Your task to perform on an android device: check android version Image 0: 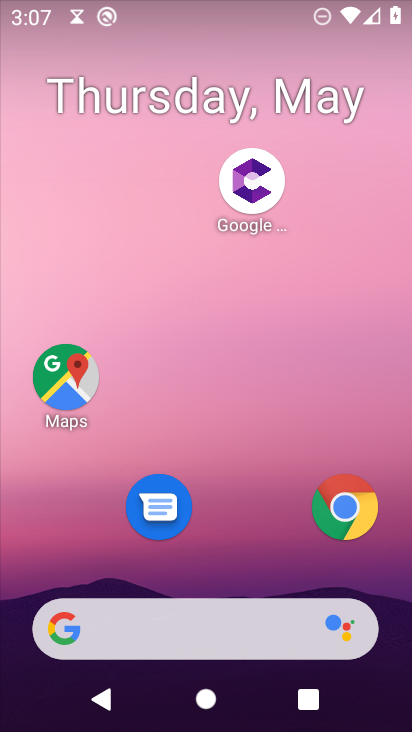
Step 0: drag from (277, 530) to (223, 167)
Your task to perform on an android device: check android version Image 1: 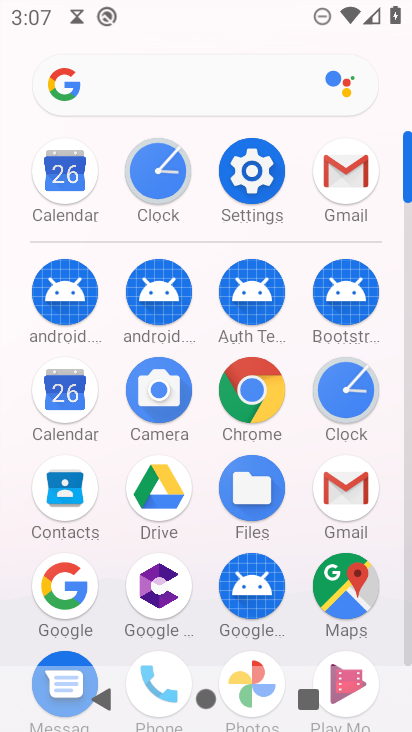
Step 1: click (244, 174)
Your task to perform on an android device: check android version Image 2: 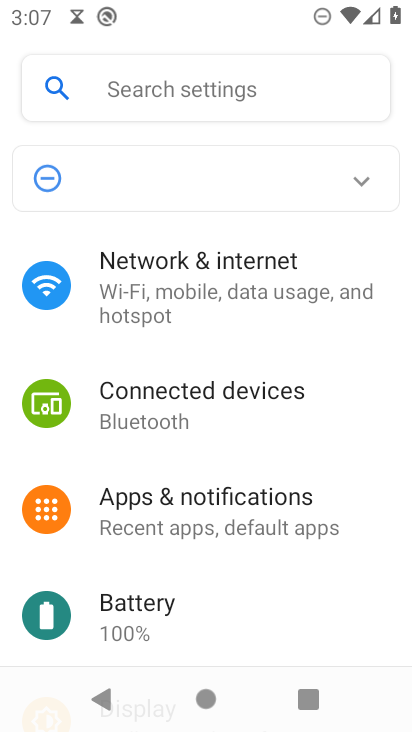
Step 2: drag from (359, 655) to (173, 115)
Your task to perform on an android device: check android version Image 3: 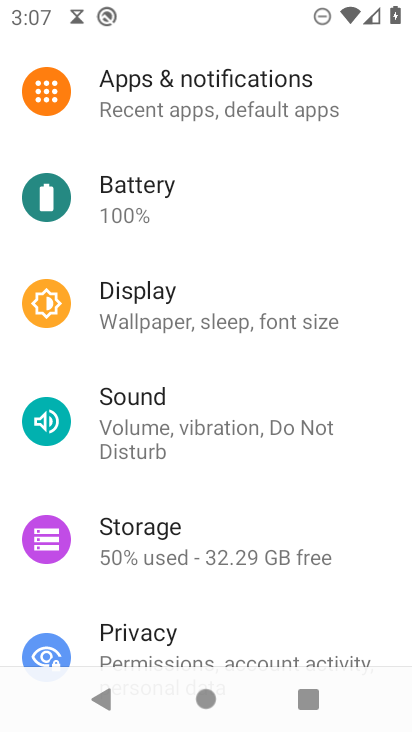
Step 3: drag from (267, 617) to (218, 221)
Your task to perform on an android device: check android version Image 4: 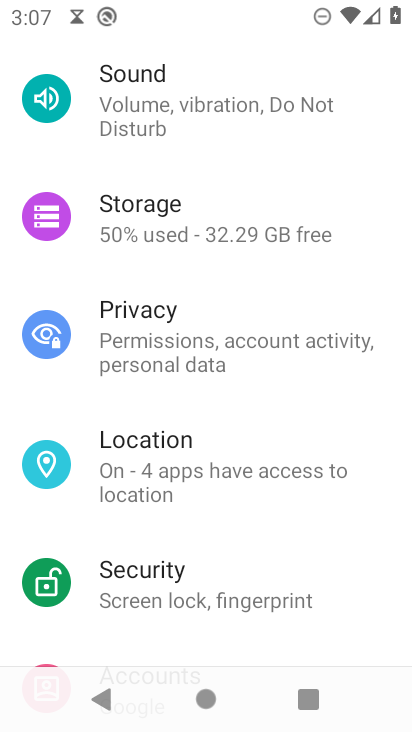
Step 4: drag from (305, 653) to (232, 204)
Your task to perform on an android device: check android version Image 5: 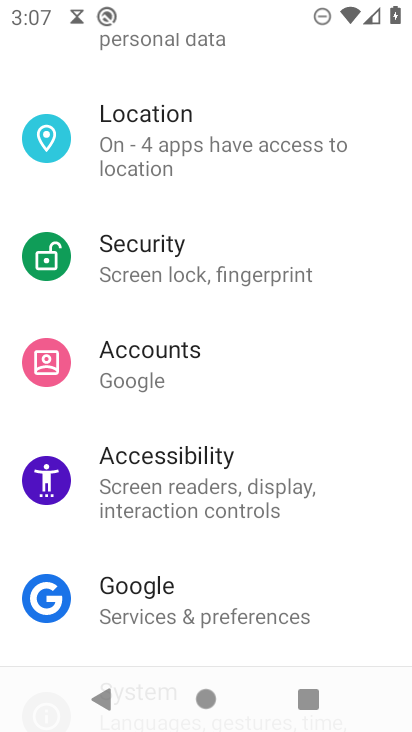
Step 5: drag from (310, 627) to (235, 263)
Your task to perform on an android device: check android version Image 6: 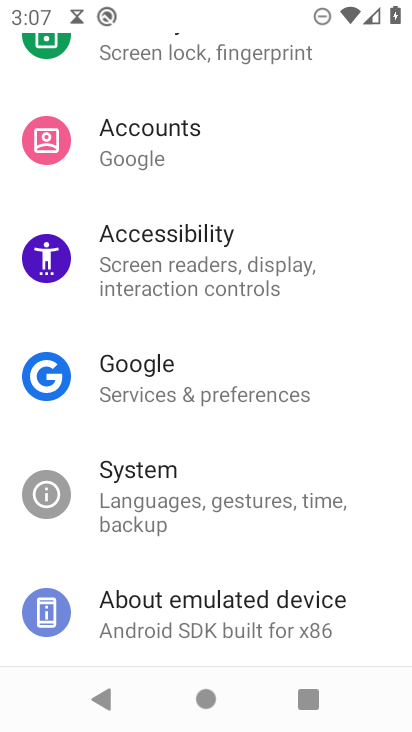
Step 6: drag from (361, 644) to (290, 322)
Your task to perform on an android device: check android version Image 7: 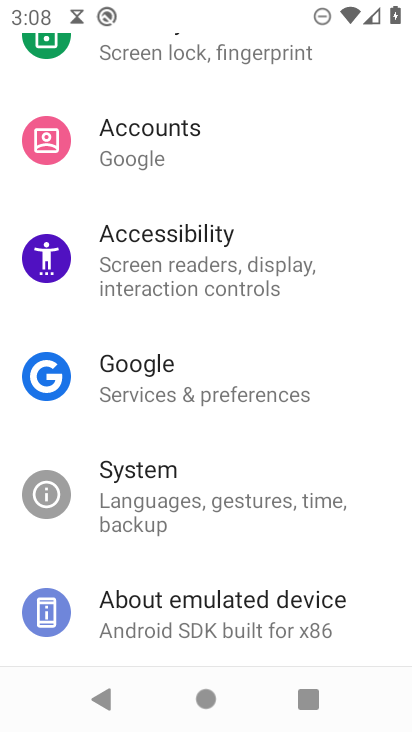
Step 7: drag from (329, 584) to (333, 133)
Your task to perform on an android device: check android version Image 8: 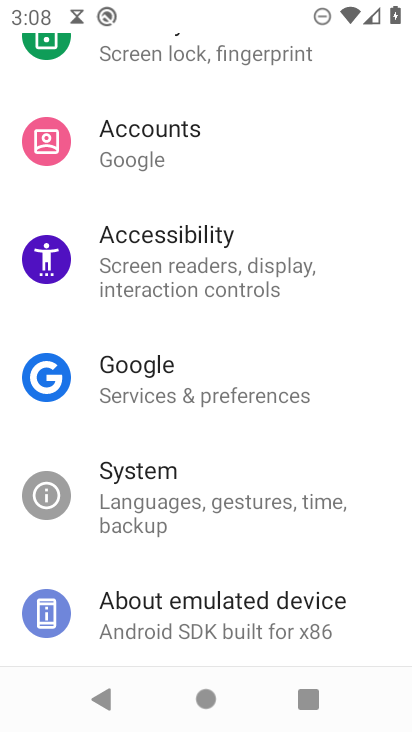
Step 8: click (206, 610)
Your task to perform on an android device: check android version Image 9: 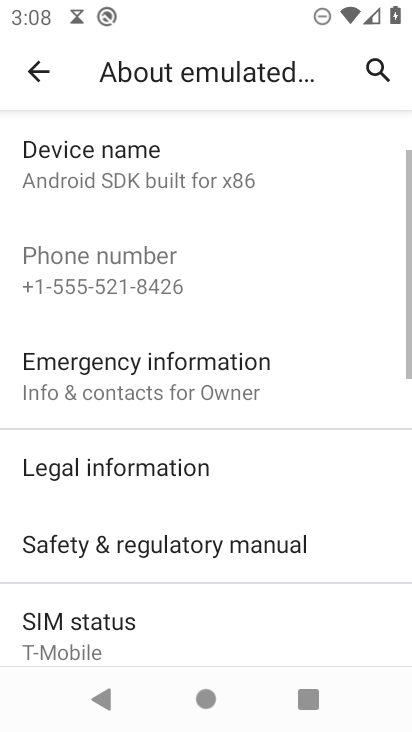
Step 9: task complete